Your task to perform on an android device: add a contact Image 0: 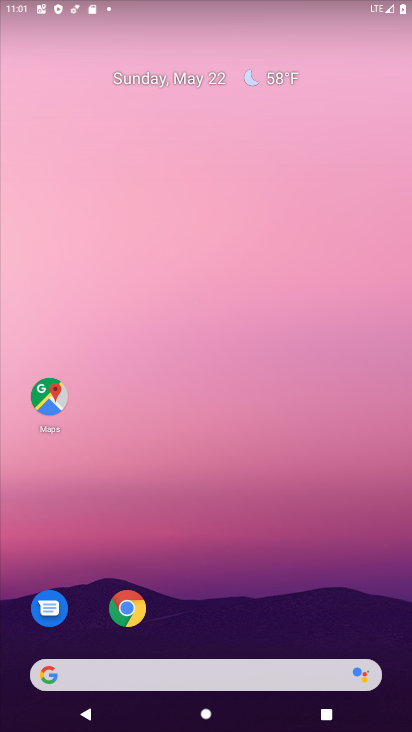
Step 0: drag from (231, 727) to (260, 84)
Your task to perform on an android device: add a contact Image 1: 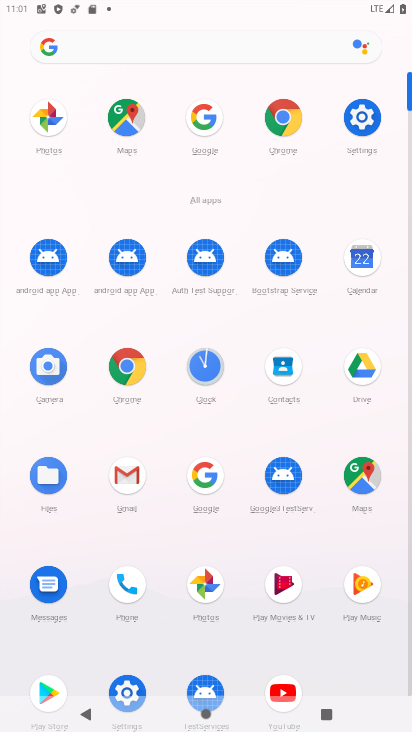
Step 1: click (279, 362)
Your task to perform on an android device: add a contact Image 2: 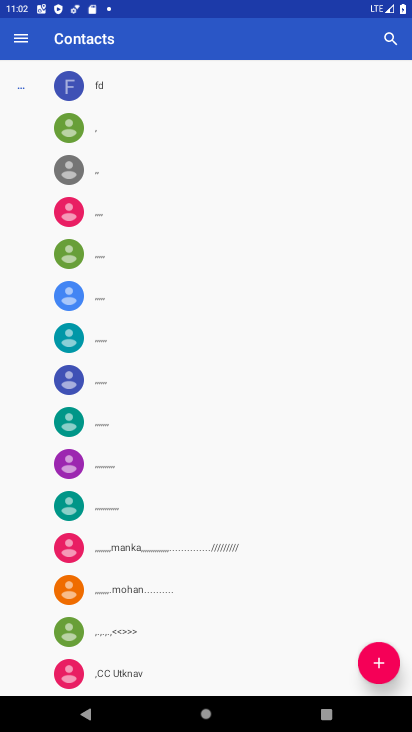
Step 2: click (384, 663)
Your task to perform on an android device: add a contact Image 3: 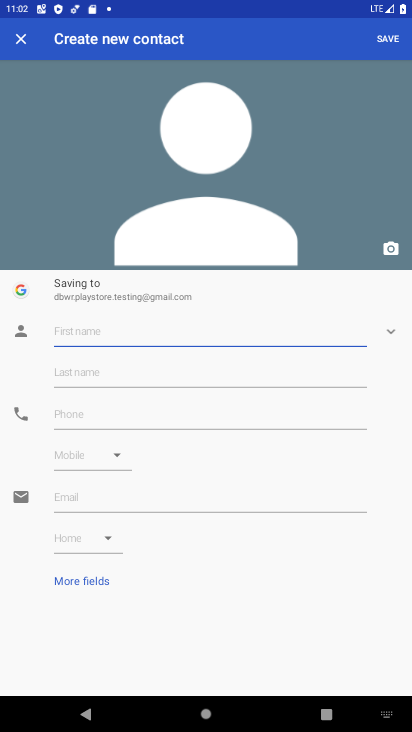
Step 3: type "bts"
Your task to perform on an android device: add a contact Image 4: 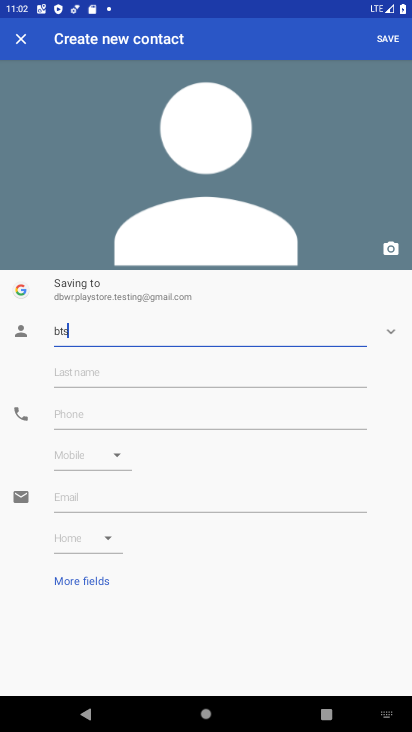
Step 4: click (78, 410)
Your task to perform on an android device: add a contact Image 5: 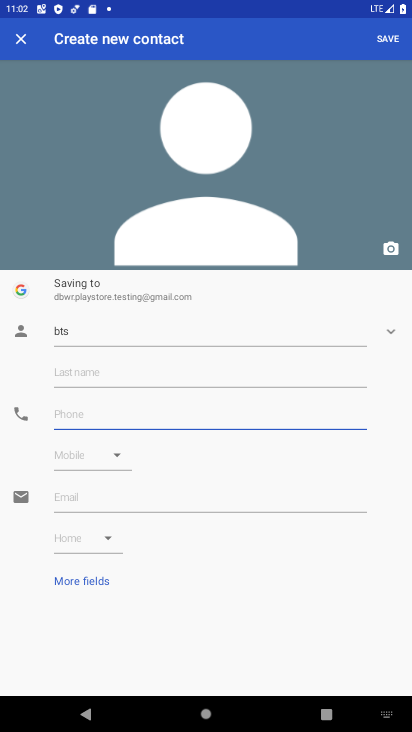
Step 5: type "88858585"
Your task to perform on an android device: add a contact Image 6: 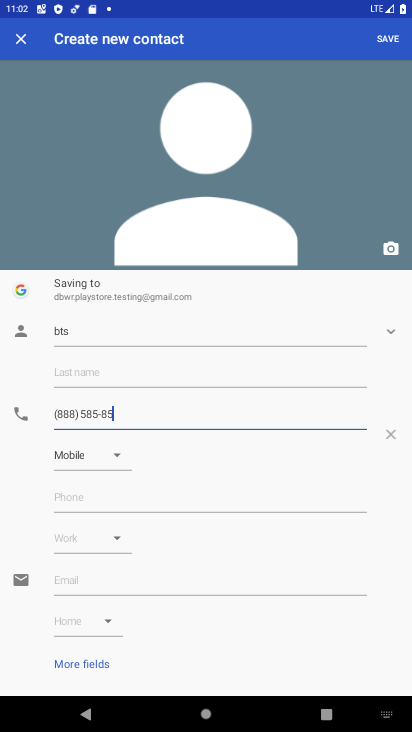
Step 6: click (388, 35)
Your task to perform on an android device: add a contact Image 7: 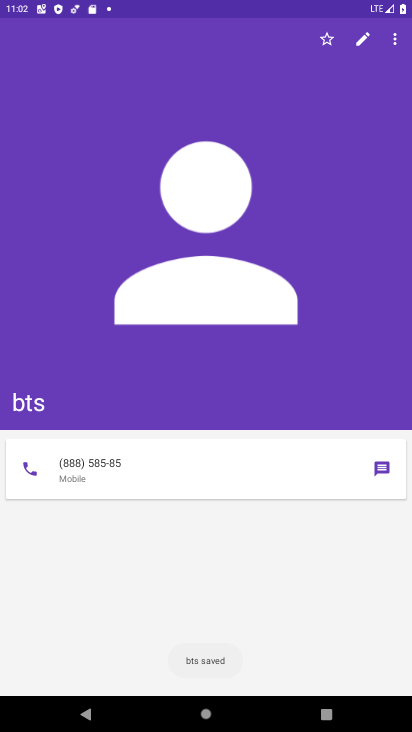
Step 7: task complete